Your task to perform on an android device: Open settings Image 0: 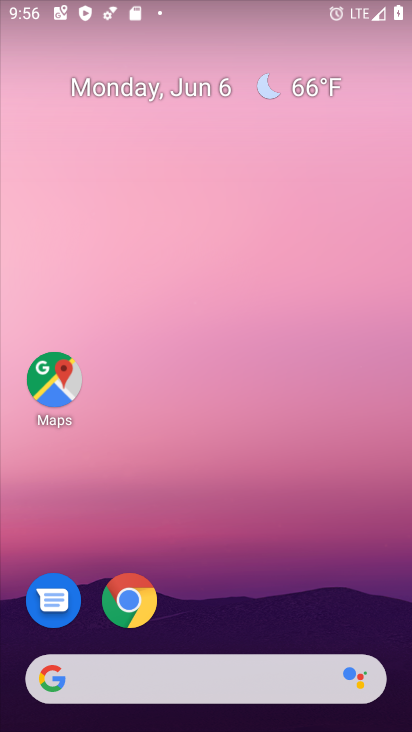
Step 0: drag from (0, 704) to (234, 213)
Your task to perform on an android device: Open settings Image 1: 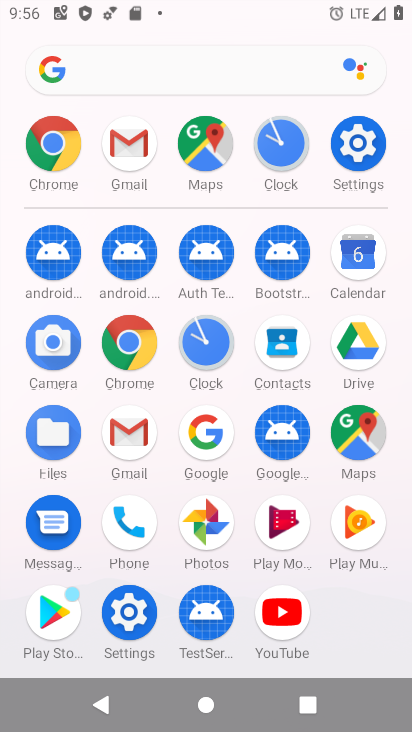
Step 1: click (347, 149)
Your task to perform on an android device: Open settings Image 2: 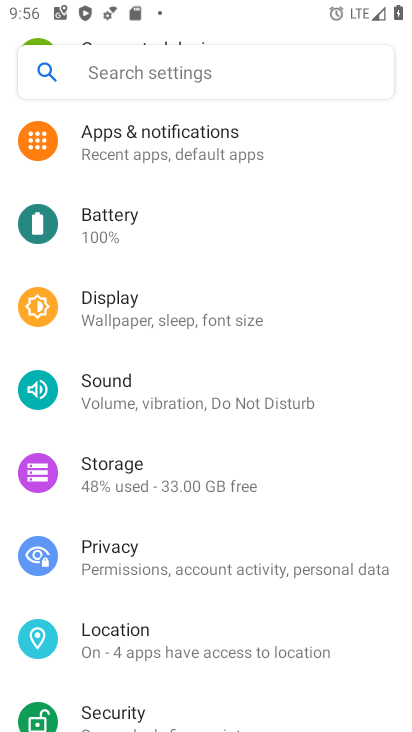
Step 2: task complete